Your task to perform on an android device: read, delete, or share a saved page in the chrome app Image 0: 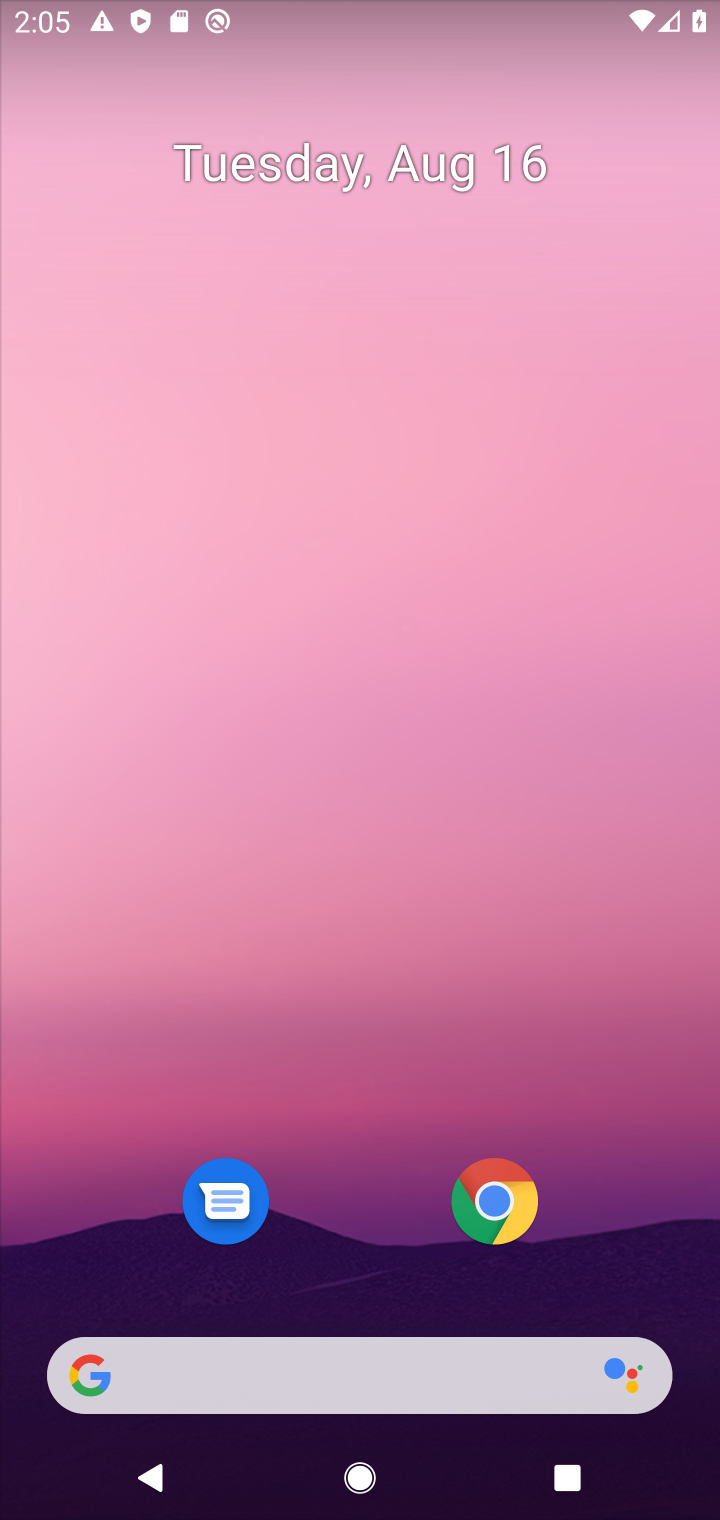
Step 0: click (482, 1194)
Your task to perform on an android device: read, delete, or share a saved page in the chrome app Image 1: 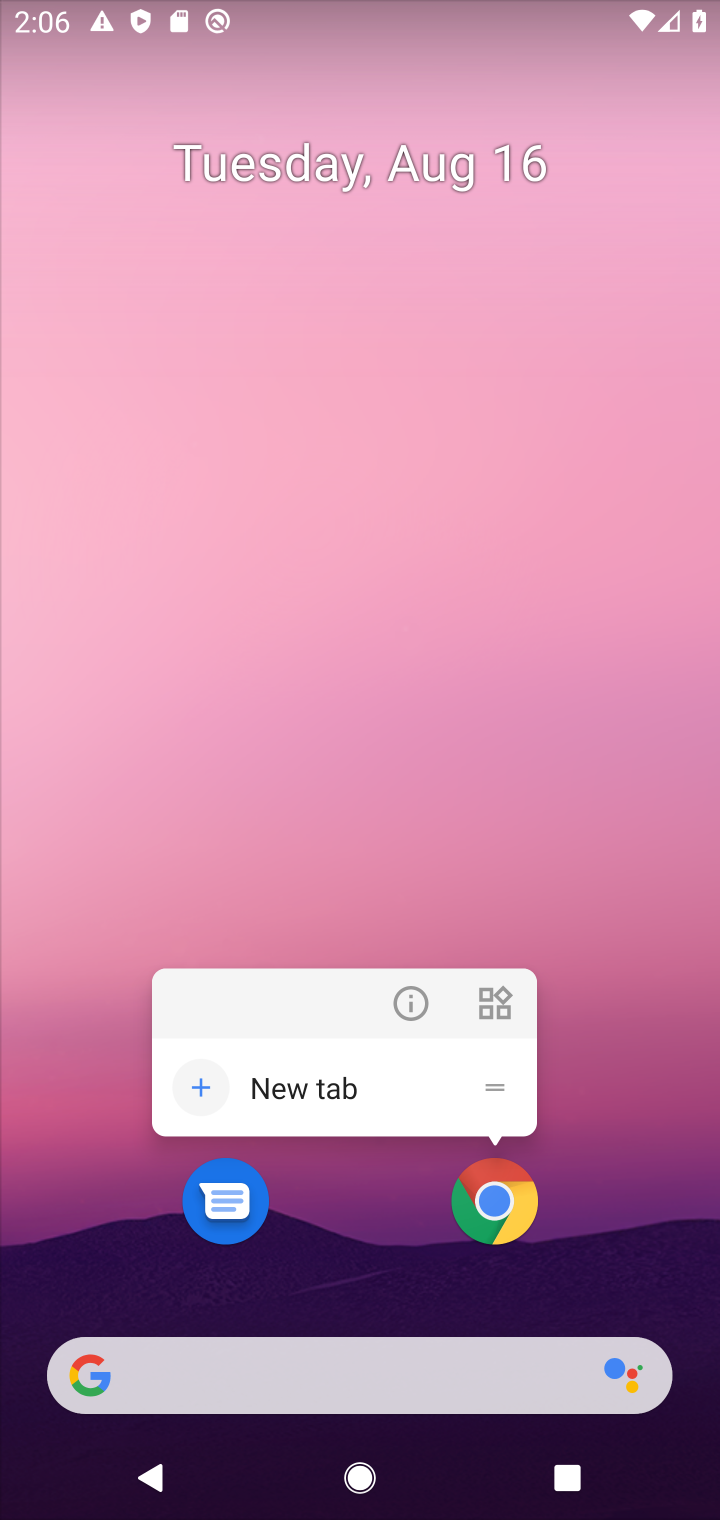
Step 1: click (502, 1197)
Your task to perform on an android device: read, delete, or share a saved page in the chrome app Image 2: 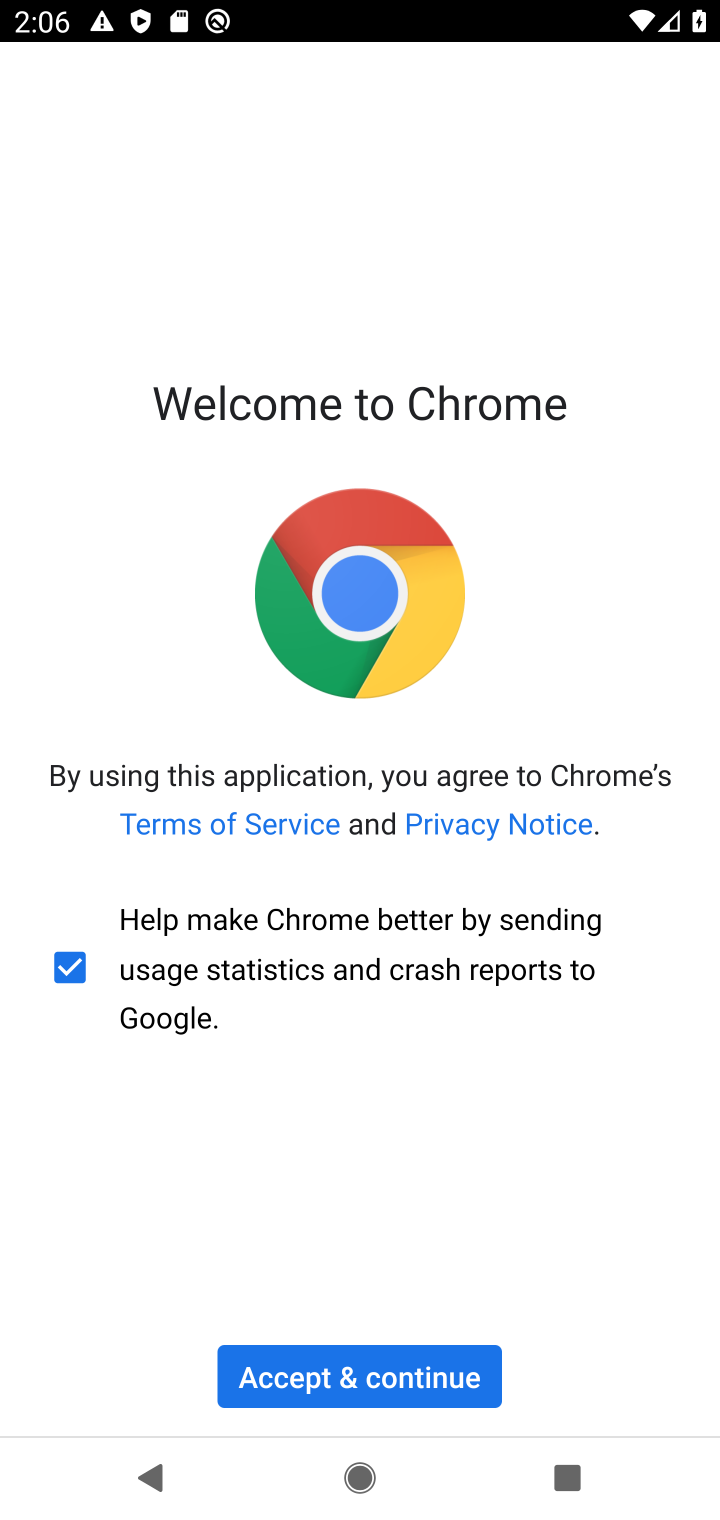
Step 2: click (332, 1381)
Your task to perform on an android device: read, delete, or share a saved page in the chrome app Image 3: 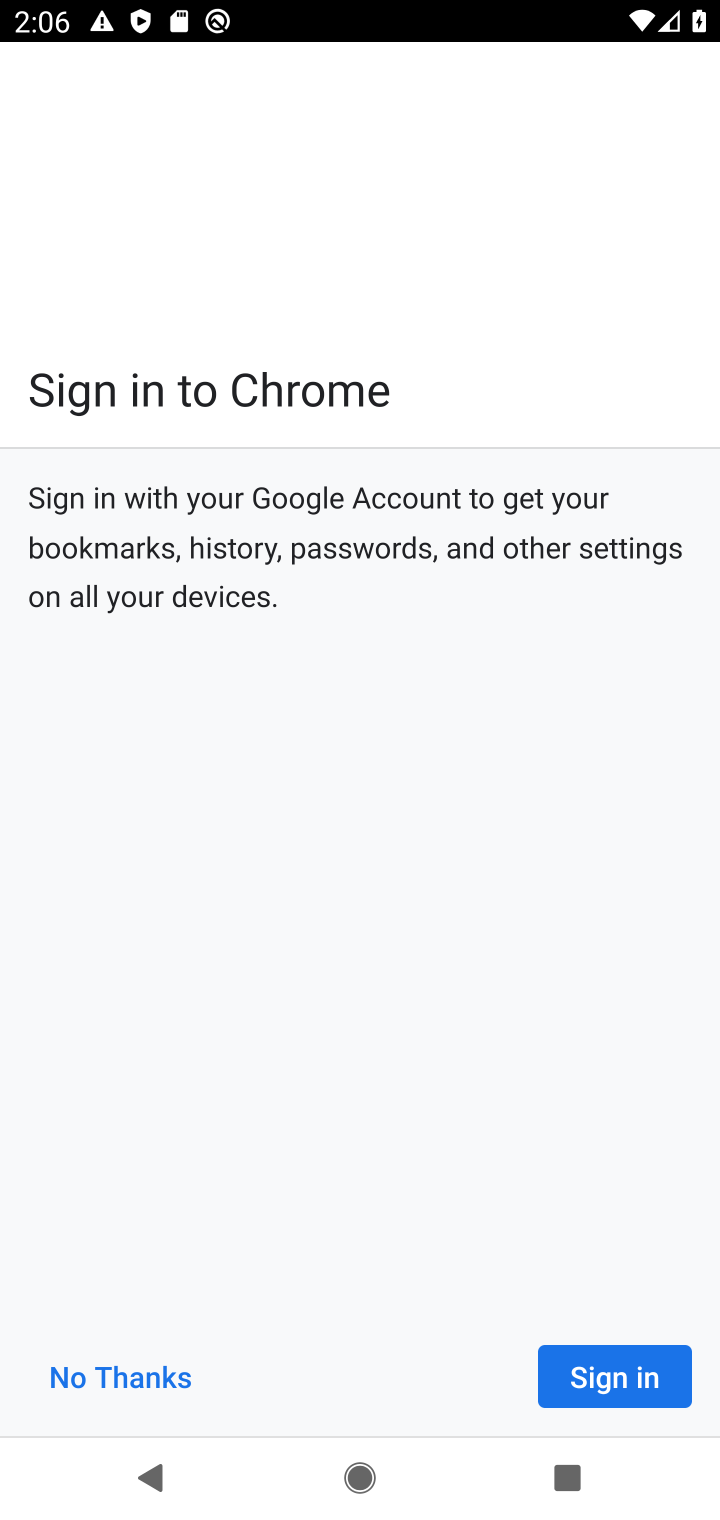
Step 3: click (88, 1368)
Your task to perform on an android device: read, delete, or share a saved page in the chrome app Image 4: 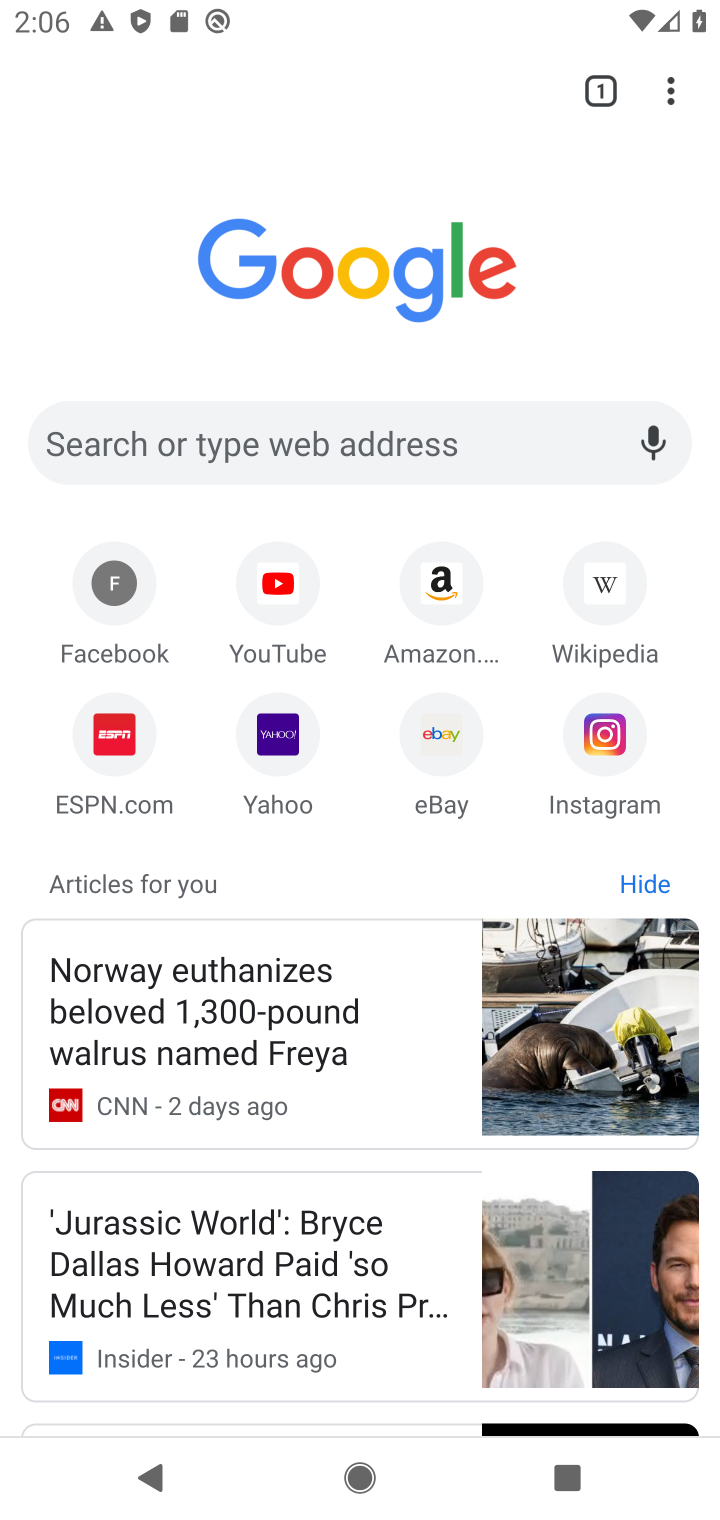
Step 4: drag from (672, 96) to (322, 607)
Your task to perform on an android device: read, delete, or share a saved page in the chrome app Image 5: 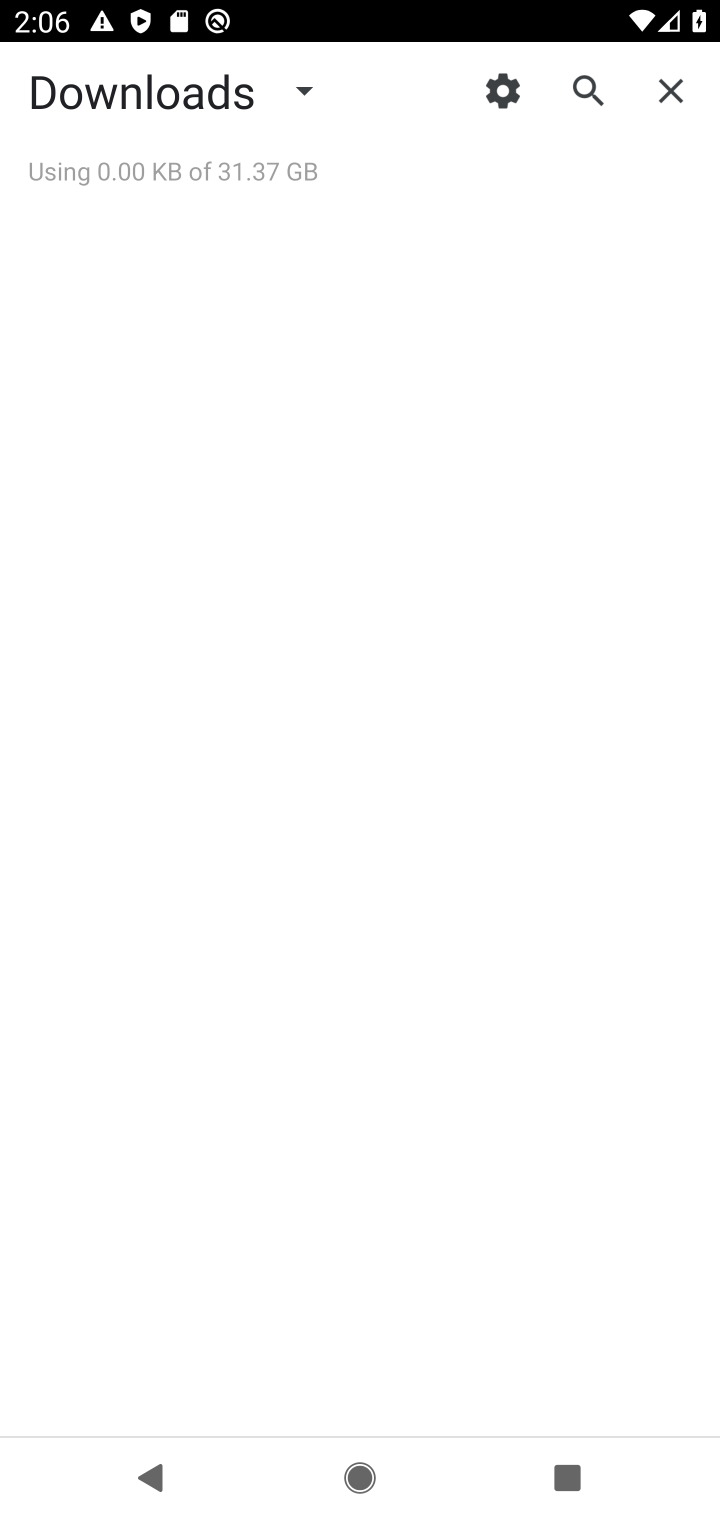
Step 5: click (298, 85)
Your task to perform on an android device: read, delete, or share a saved page in the chrome app Image 6: 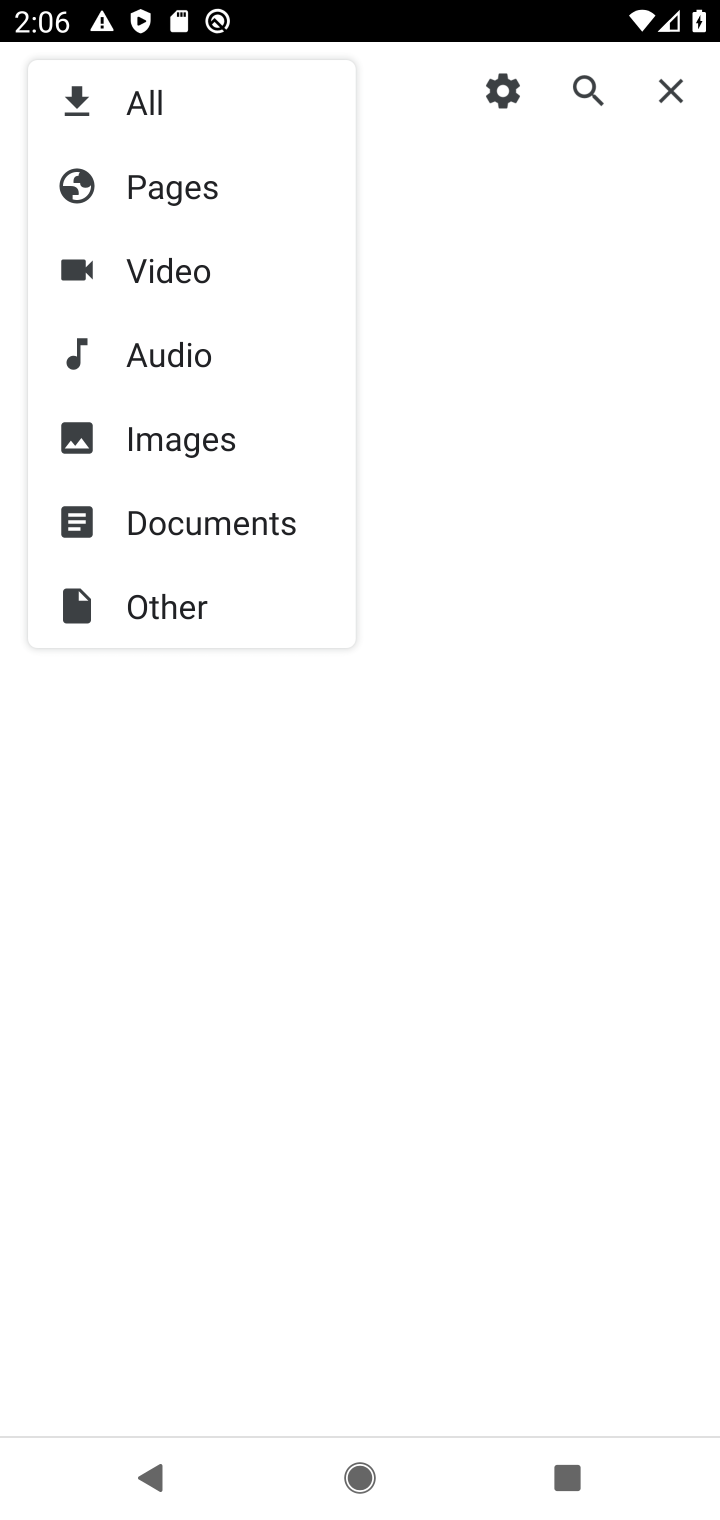
Step 6: click (134, 97)
Your task to perform on an android device: read, delete, or share a saved page in the chrome app Image 7: 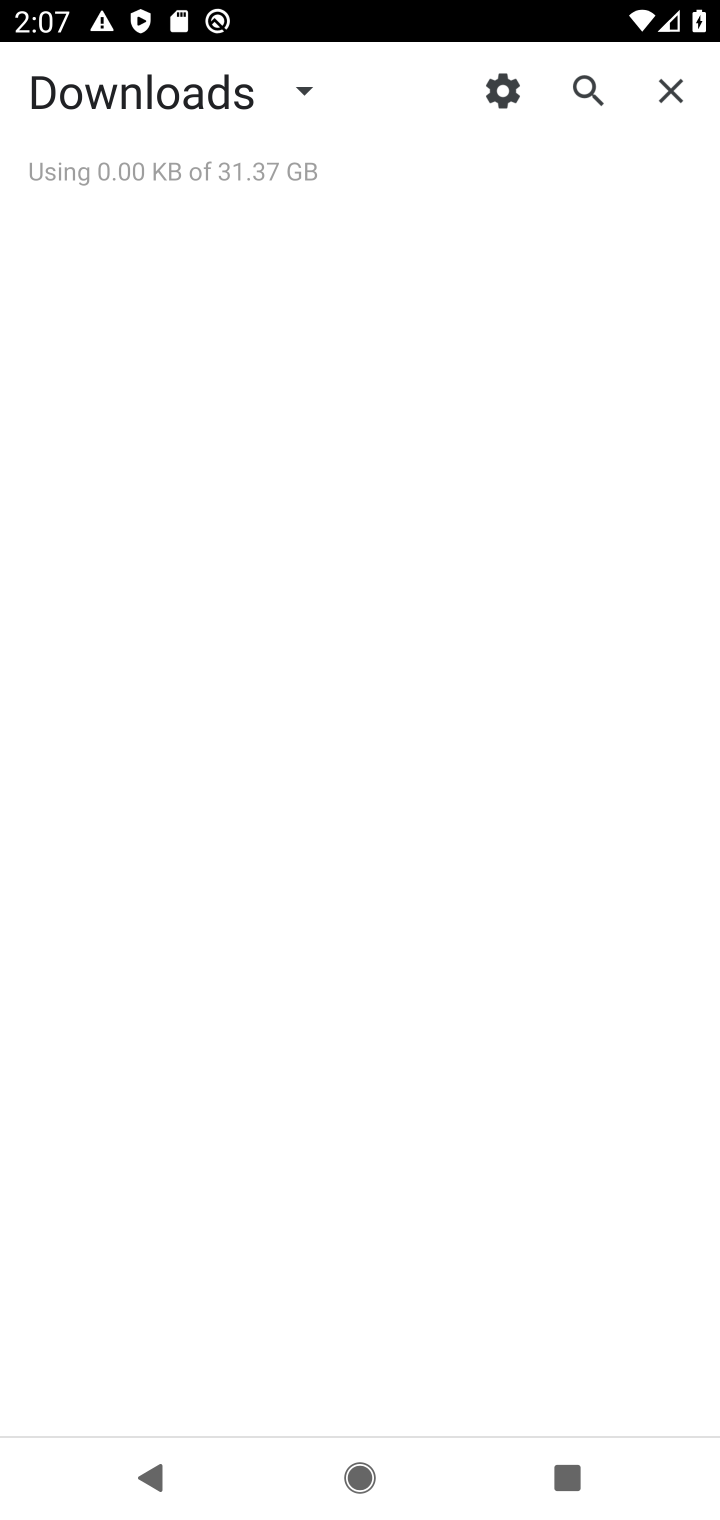
Step 7: task complete